Your task to perform on an android device: Open Chrome and go to settings Image 0: 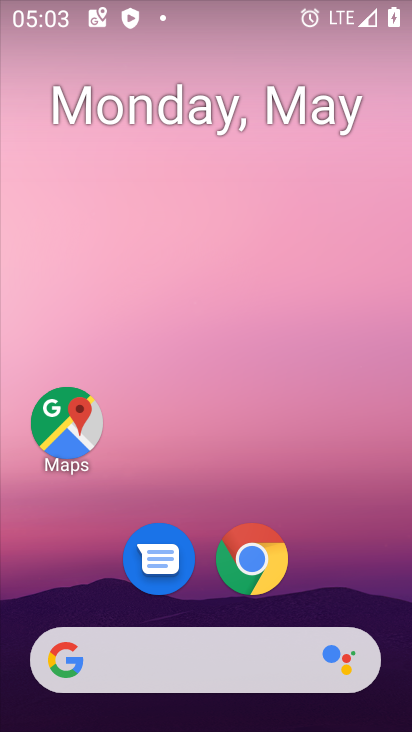
Step 0: drag from (216, 689) to (238, 247)
Your task to perform on an android device: Open Chrome and go to settings Image 1: 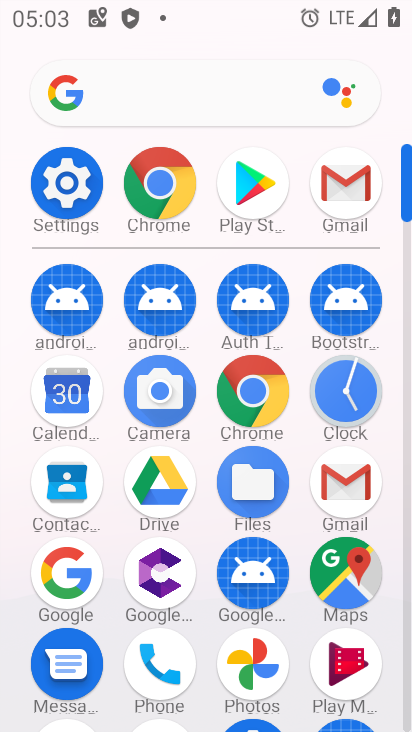
Step 1: click (66, 187)
Your task to perform on an android device: Open Chrome and go to settings Image 2: 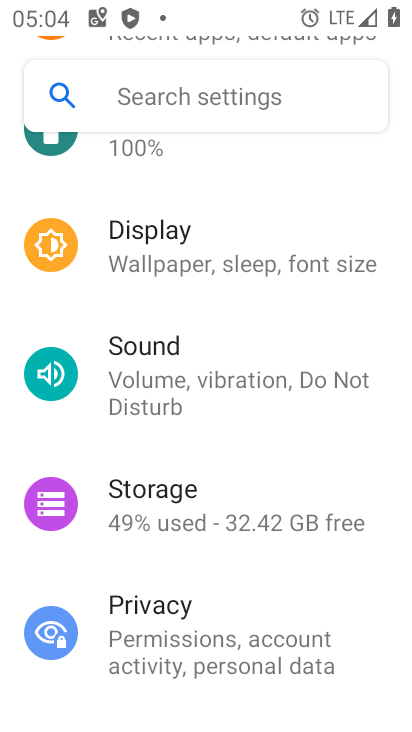
Step 2: task complete